Your task to perform on an android device: Find coffee shops on Maps Image 0: 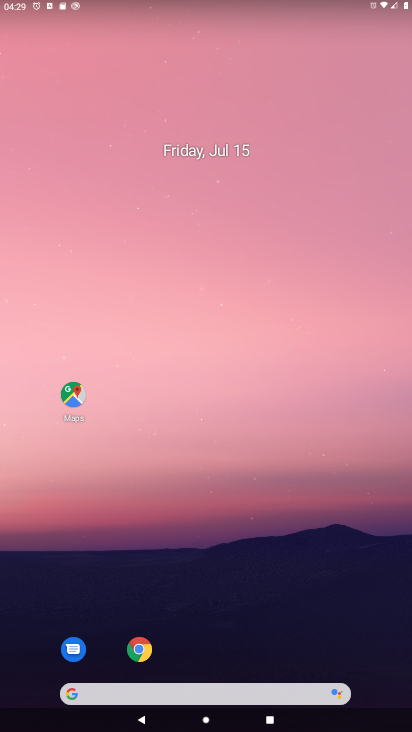
Step 0: click (75, 394)
Your task to perform on an android device: Find coffee shops on Maps Image 1: 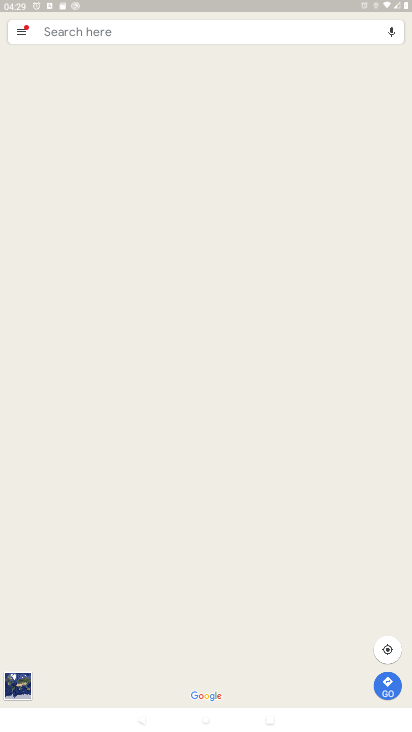
Step 1: click (95, 30)
Your task to perform on an android device: Find coffee shops on Maps Image 2: 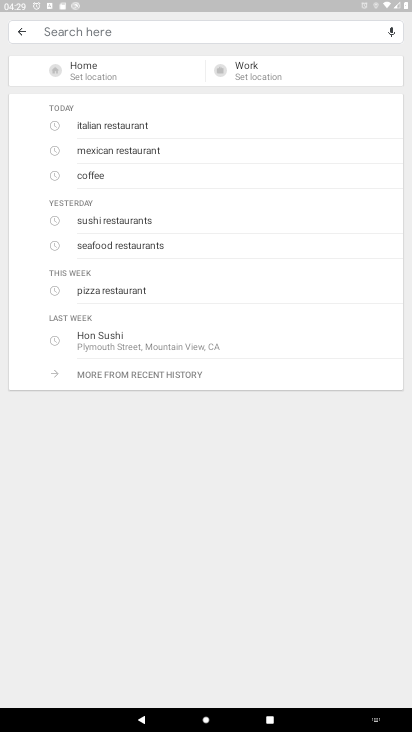
Step 2: type "coffee shops"
Your task to perform on an android device: Find coffee shops on Maps Image 3: 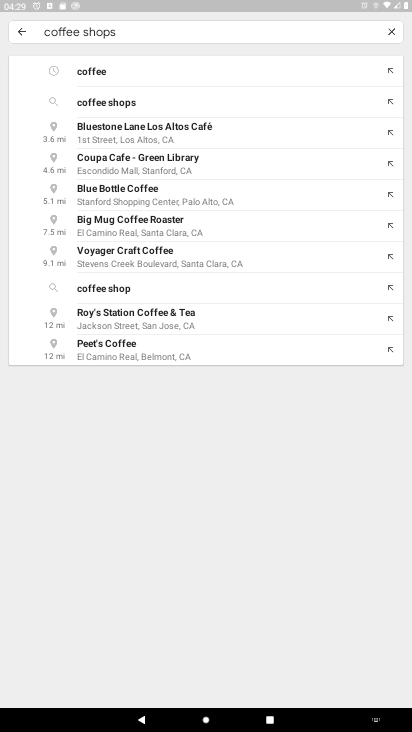
Step 3: click (99, 100)
Your task to perform on an android device: Find coffee shops on Maps Image 4: 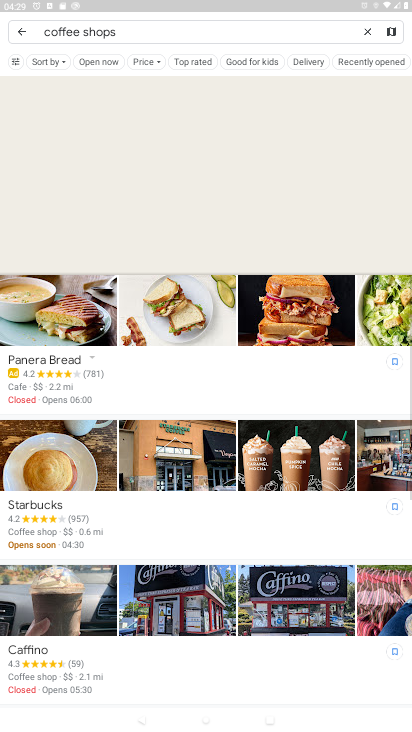
Step 4: task complete